Your task to perform on an android device: Open Chrome and go to settings Image 0: 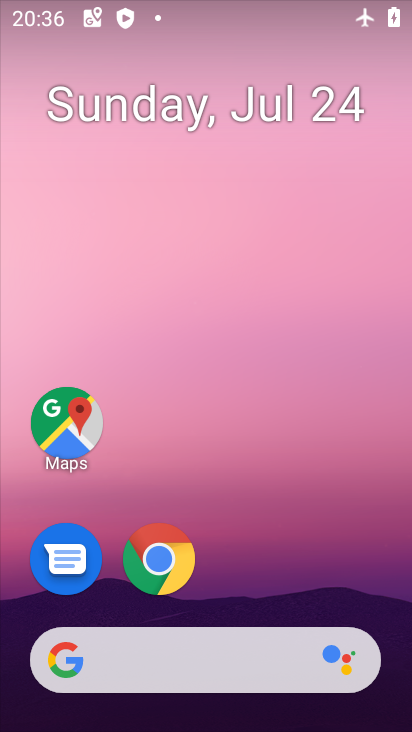
Step 0: press home button
Your task to perform on an android device: Open Chrome and go to settings Image 1: 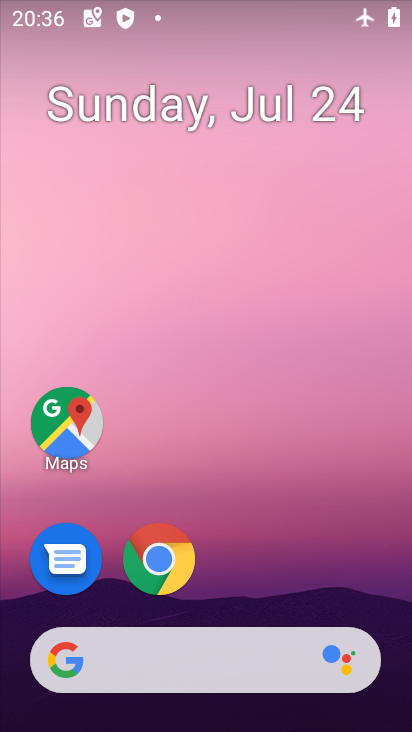
Step 1: drag from (371, 580) to (376, 133)
Your task to perform on an android device: Open Chrome and go to settings Image 2: 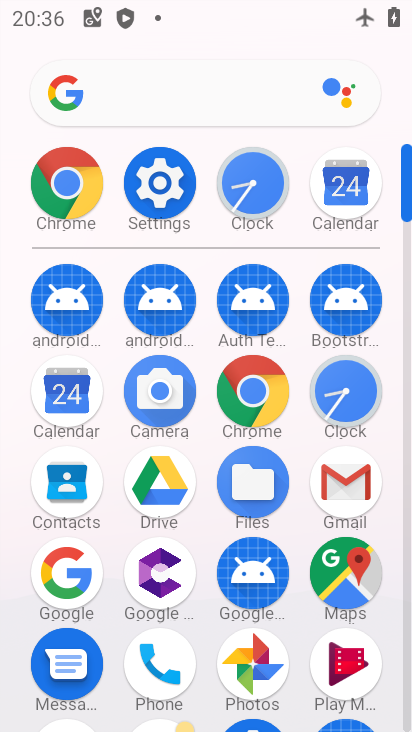
Step 2: click (255, 395)
Your task to perform on an android device: Open Chrome and go to settings Image 3: 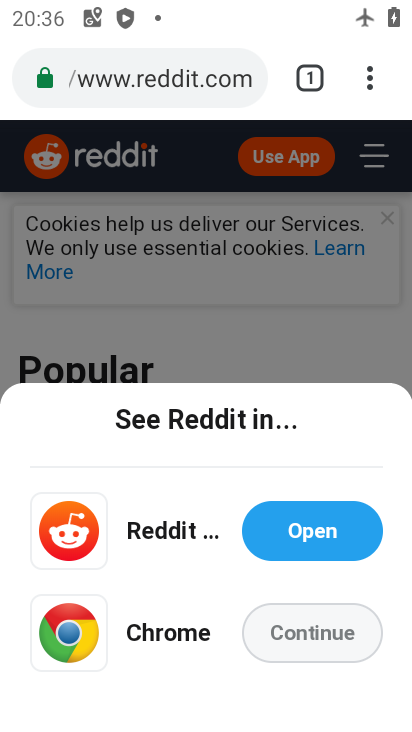
Step 3: click (368, 88)
Your task to perform on an android device: Open Chrome and go to settings Image 4: 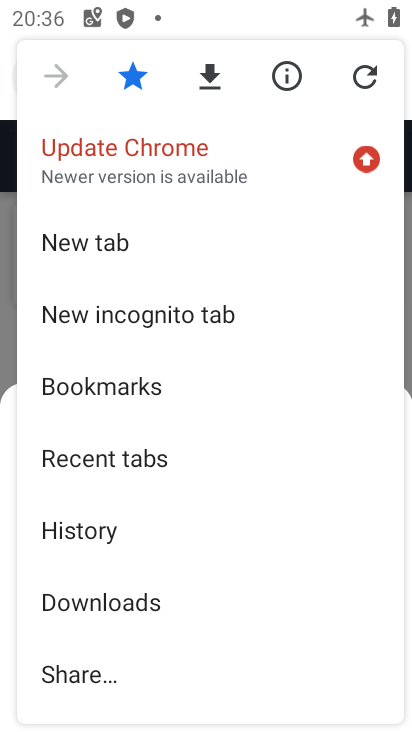
Step 4: drag from (309, 549) to (309, 481)
Your task to perform on an android device: Open Chrome and go to settings Image 5: 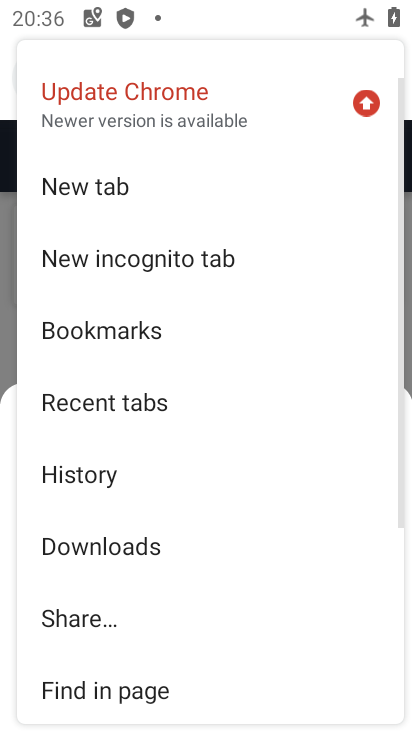
Step 5: drag from (306, 554) to (309, 428)
Your task to perform on an android device: Open Chrome and go to settings Image 6: 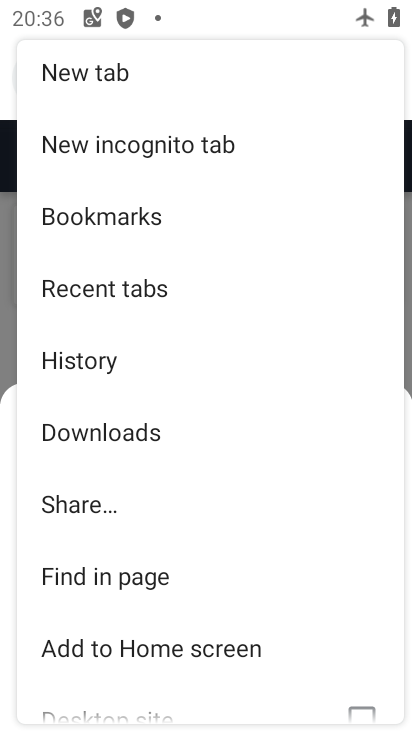
Step 6: drag from (320, 526) to (306, 414)
Your task to perform on an android device: Open Chrome and go to settings Image 7: 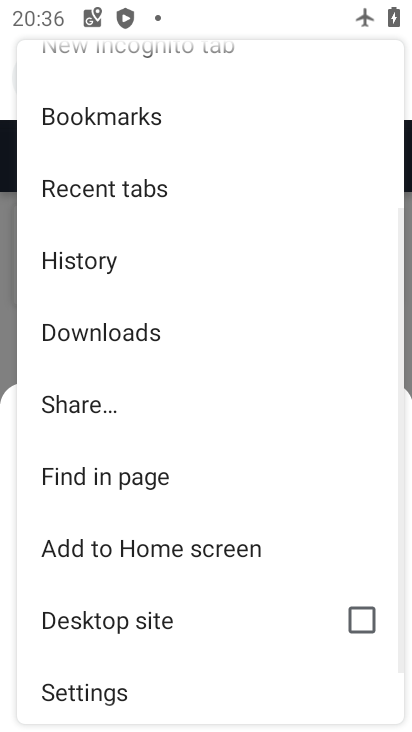
Step 7: drag from (284, 576) to (283, 400)
Your task to perform on an android device: Open Chrome and go to settings Image 8: 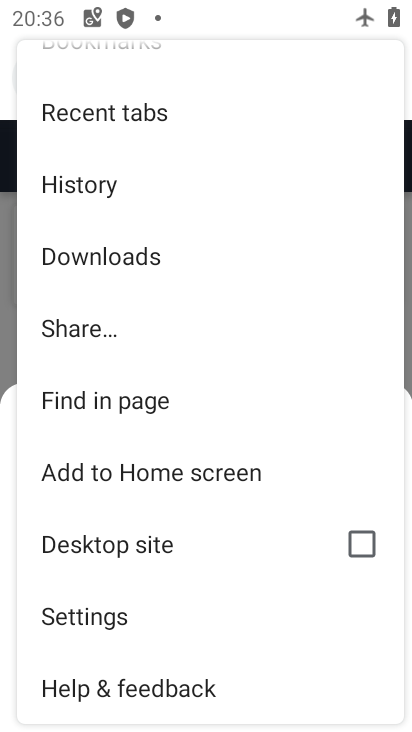
Step 8: click (271, 615)
Your task to perform on an android device: Open Chrome and go to settings Image 9: 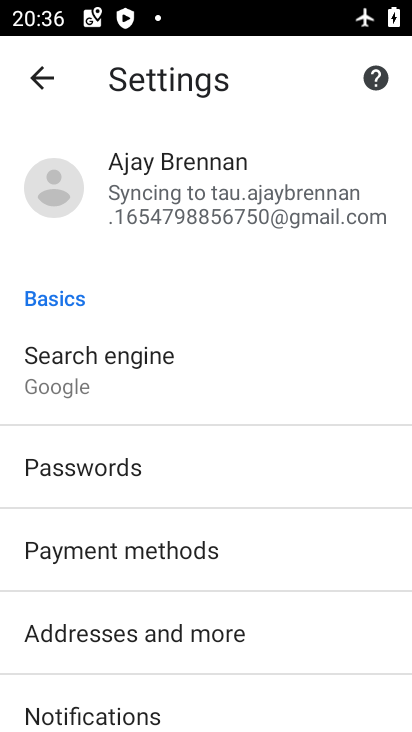
Step 9: task complete